Your task to perform on an android device: check battery use Image 0: 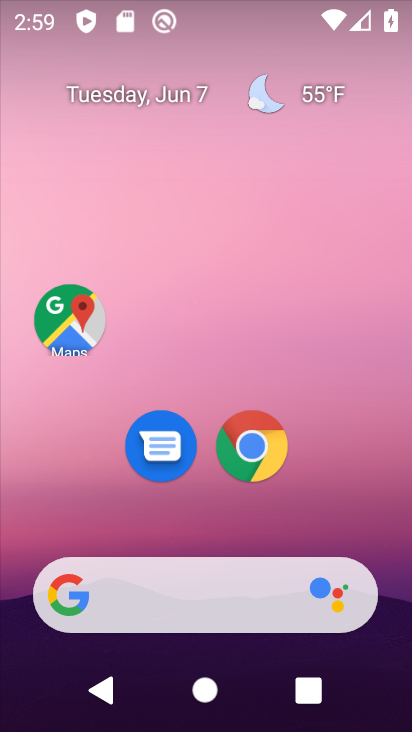
Step 0: drag from (194, 536) to (190, 27)
Your task to perform on an android device: check battery use Image 1: 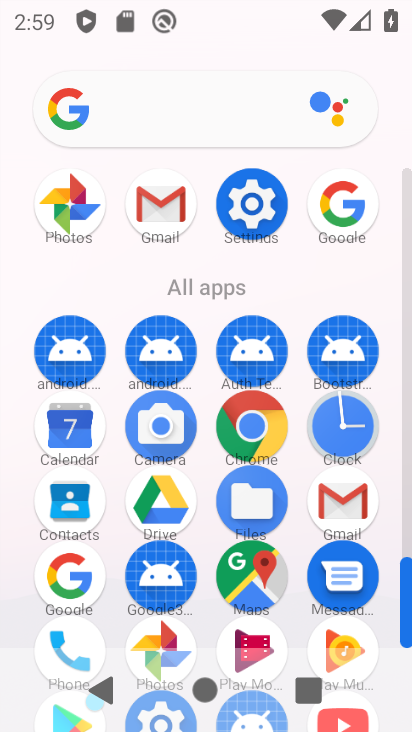
Step 1: click (257, 204)
Your task to perform on an android device: check battery use Image 2: 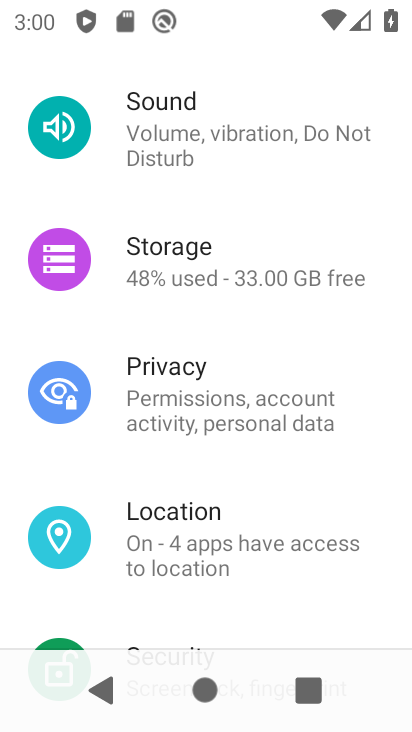
Step 2: drag from (201, 371) to (230, 11)
Your task to perform on an android device: check battery use Image 3: 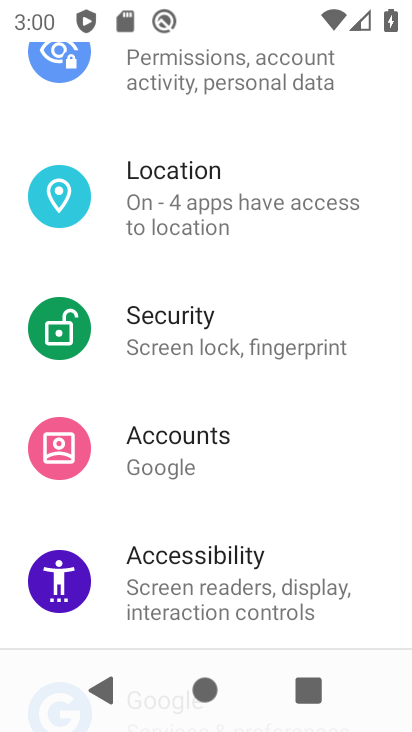
Step 3: drag from (142, 254) to (142, 663)
Your task to perform on an android device: check battery use Image 4: 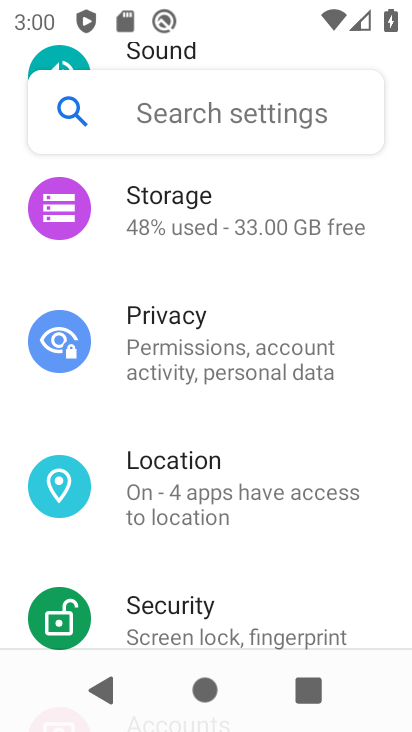
Step 4: drag from (129, 248) to (119, 648)
Your task to perform on an android device: check battery use Image 5: 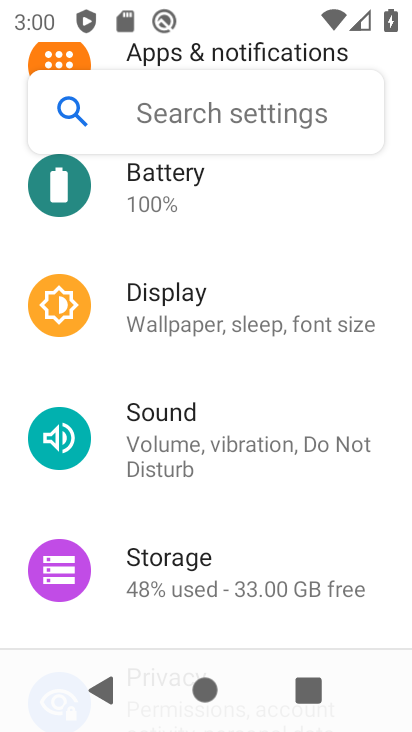
Step 5: click (162, 187)
Your task to perform on an android device: check battery use Image 6: 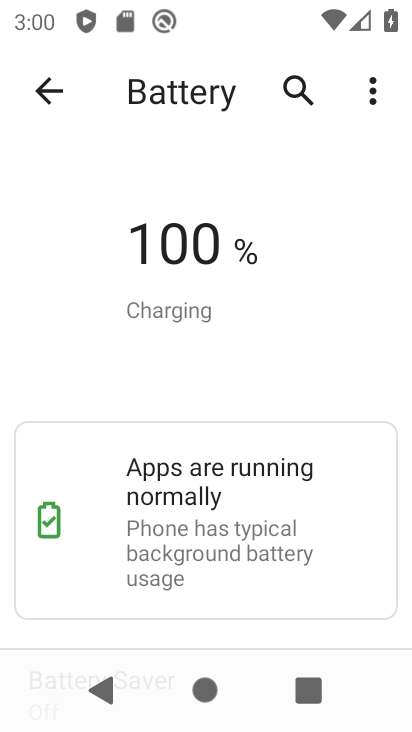
Step 6: click (366, 101)
Your task to perform on an android device: check battery use Image 7: 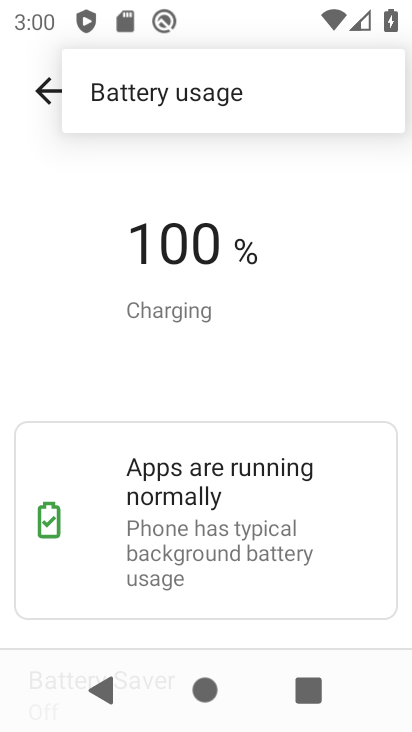
Step 7: click (142, 94)
Your task to perform on an android device: check battery use Image 8: 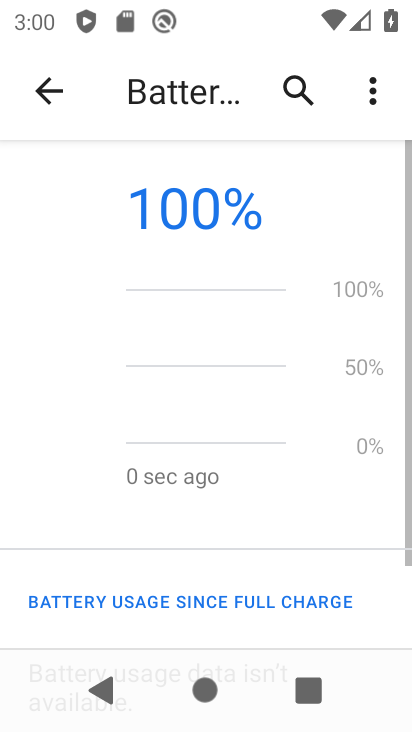
Step 8: task complete